Your task to perform on an android device: Show me popular games on the Play Store Image 0: 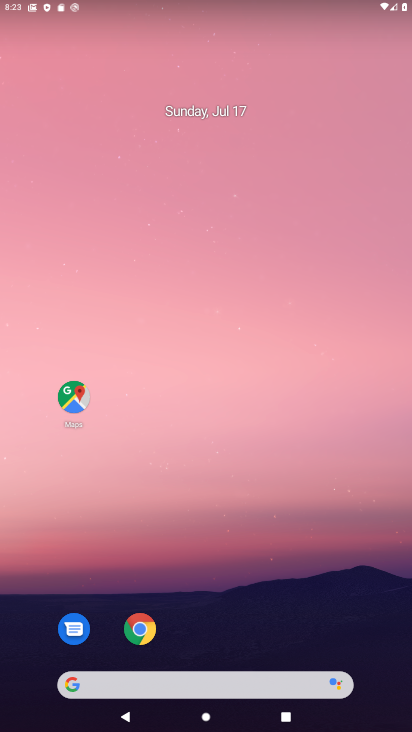
Step 0: drag from (229, 642) to (214, 99)
Your task to perform on an android device: Show me popular games on the Play Store Image 1: 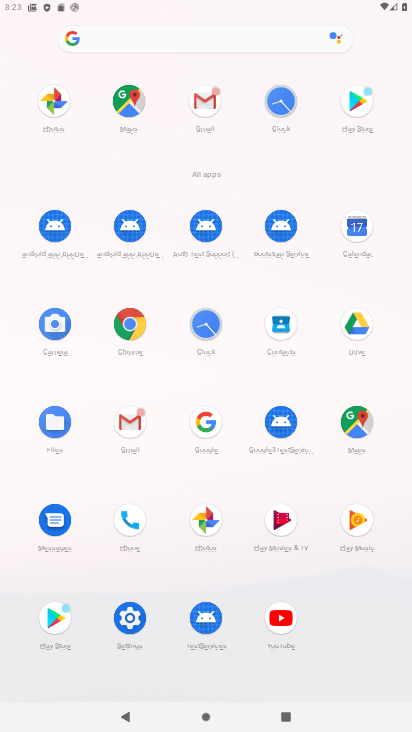
Step 1: click (51, 613)
Your task to perform on an android device: Show me popular games on the Play Store Image 2: 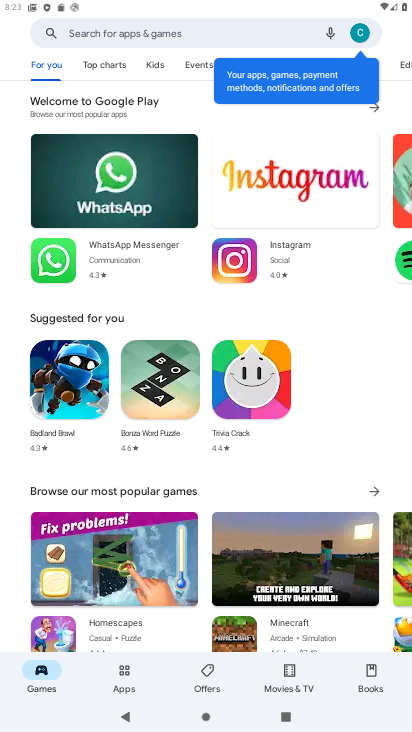
Step 2: click (370, 491)
Your task to perform on an android device: Show me popular games on the Play Store Image 3: 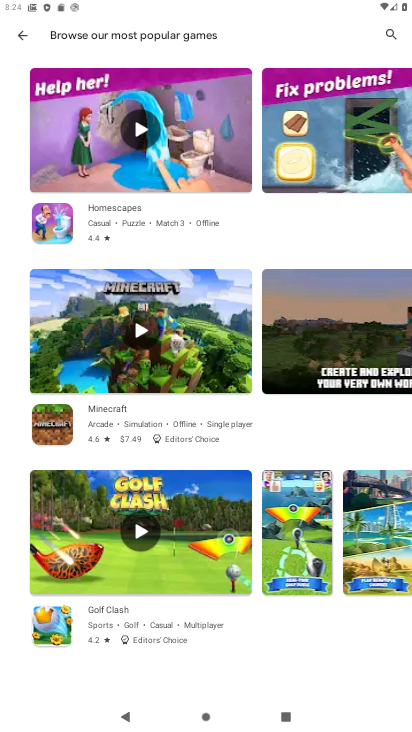
Step 3: task complete